Your task to perform on an android device: See recent photos Image 0: 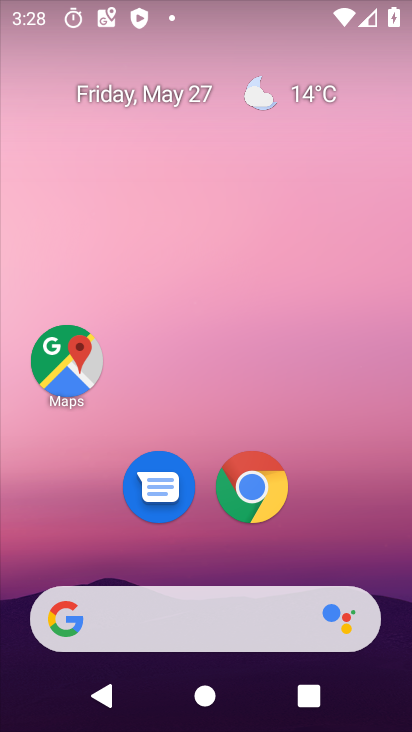
Step 0: drag from (341, 441) to (292, 36)
Your task to perform on an android device: See recent photos Image 1: 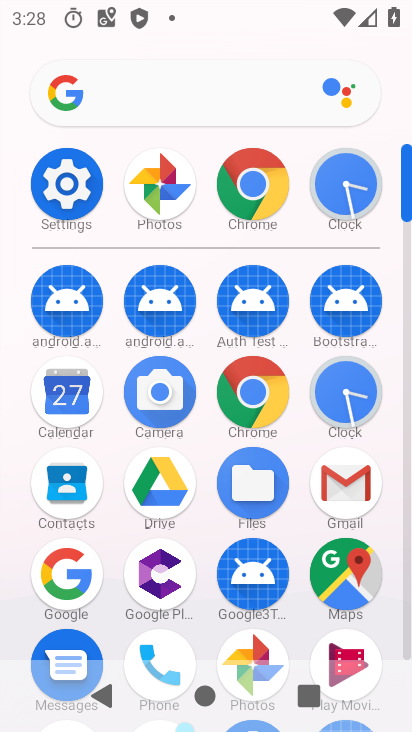
Step 1: click (252, 650)
Your task to perform on an android device: See recent photos Image 2: 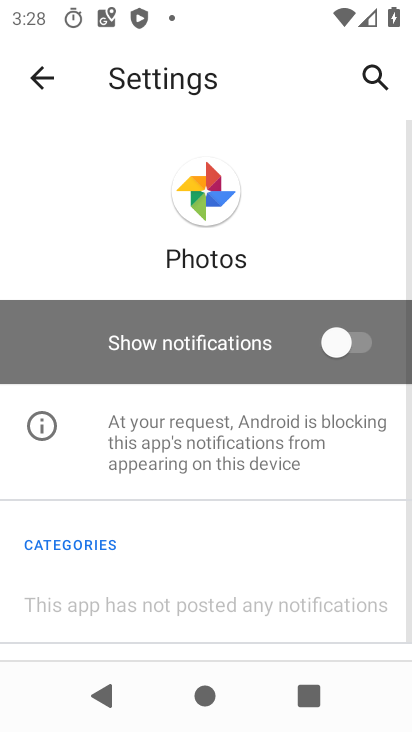
Step 2: click (62, 79)
Your task to perform on an android device: See recent photos Image 3: 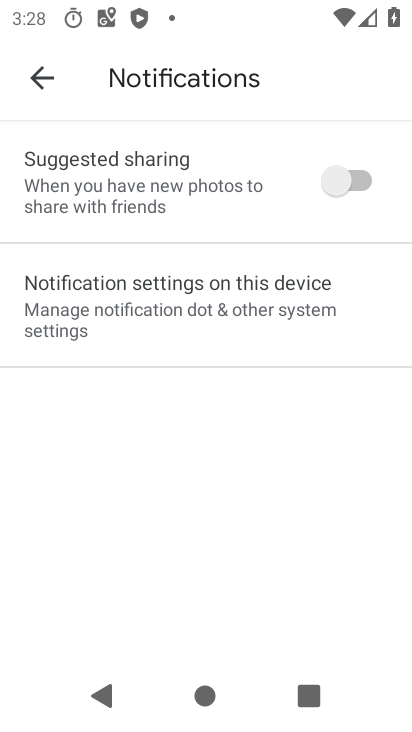
Step 3: click (56, 85)
Your task to perform on an android device: See recent photos Image 4: 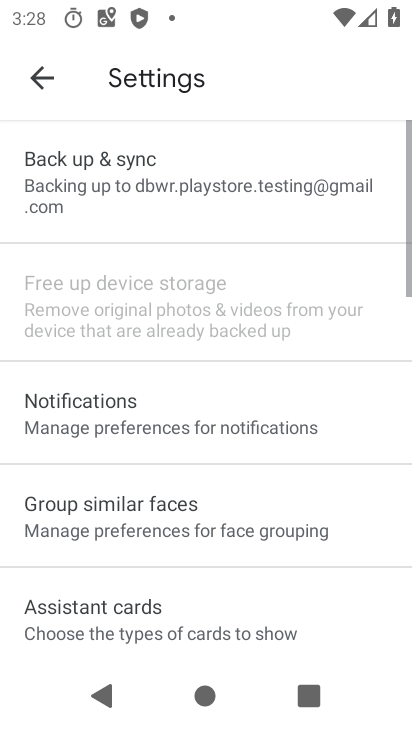
Step 4: click (56, 85)
Your task to perform on an android device: See recent photos Image 5: 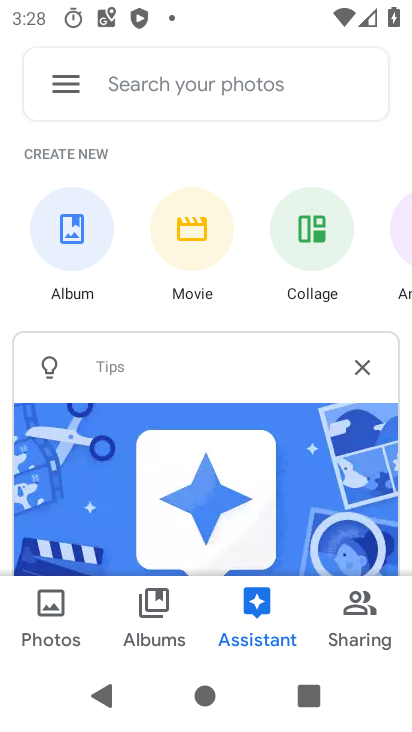
Step 5: click (50, 81)
Your task to perform on an android device: See recent photos Image 6: 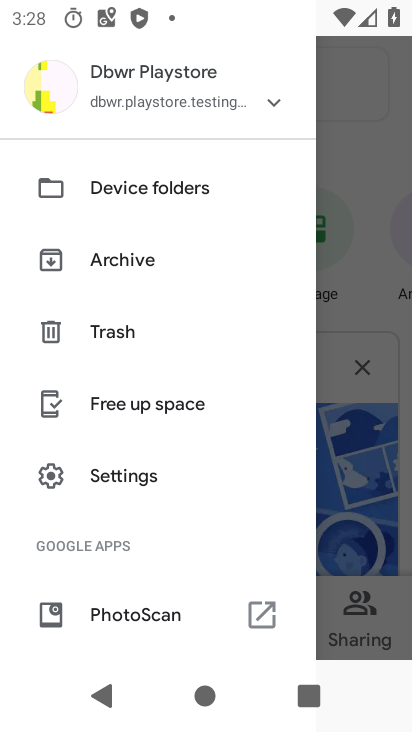
Step 6: click (355, 311)
Your task to perform on an android device: See recent photos Image 7: 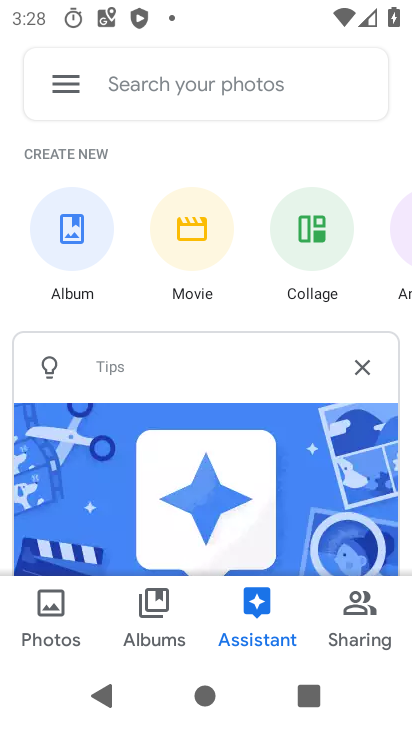
Step 7: click (46, 609)
Your task to perform on an android device: See recent photos Image 8: 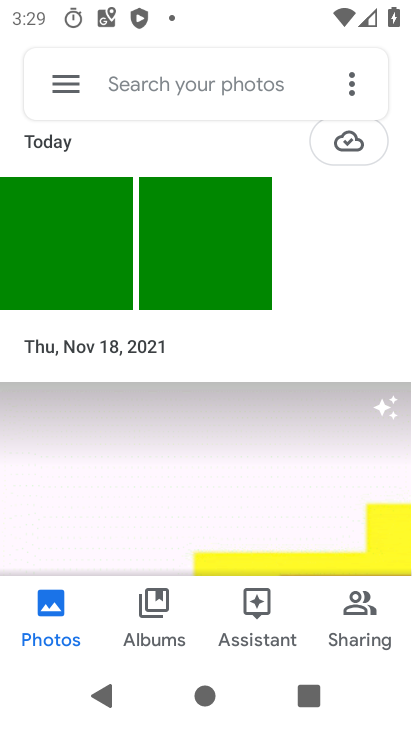
Step 8: task complete